Your task to perform on an android device: turn off data saver in the chrome app Image 0: 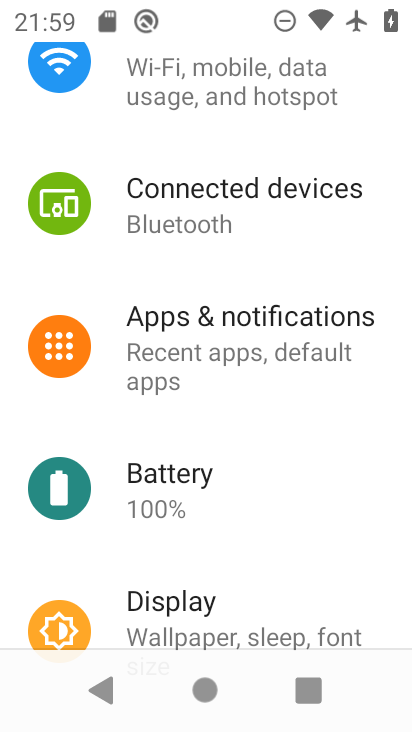
Step 0: press home button
Your task to perform on an android device: turn off data saver in the chrome app Image 1: 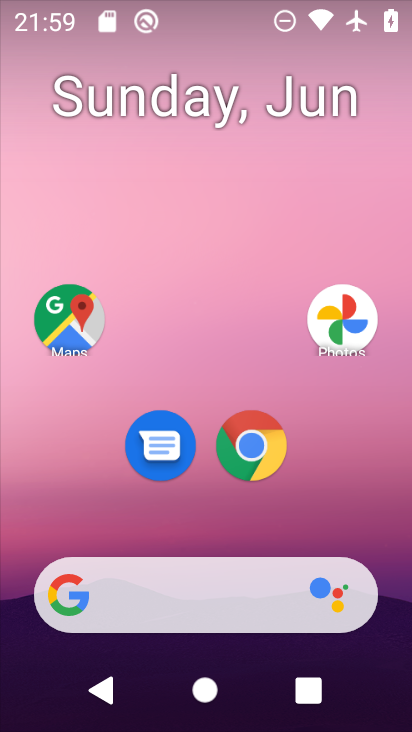
Step 1: click (260, 454)
Your task to perform on an android device: turn off data saver in the chrome app Image 2: 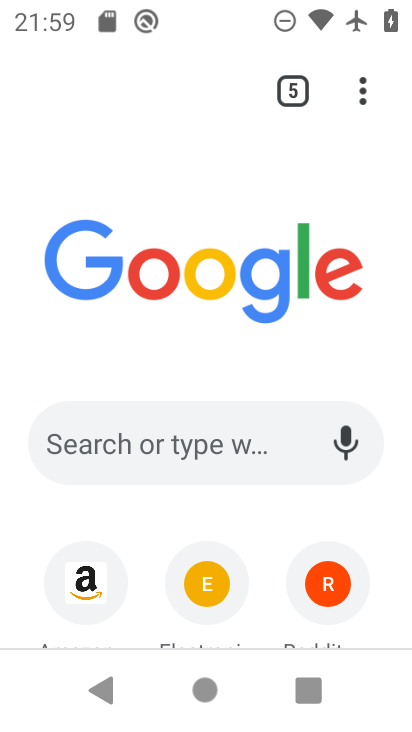
Step 2: drag from (370, 93) to (201, 476)
Your task to perform on an android device: turn off data saver in the chrome app Image 3: 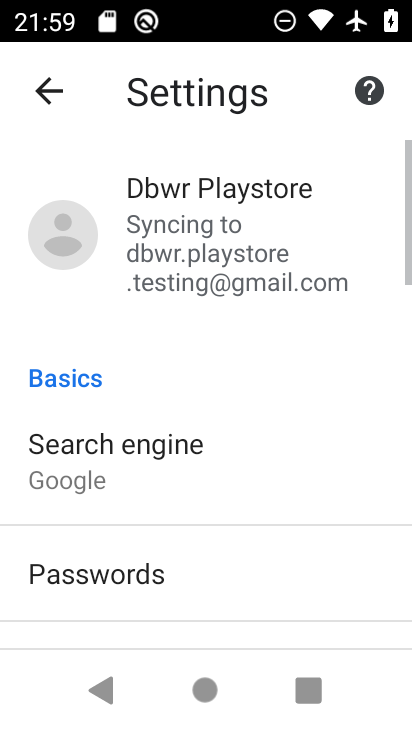
Step 3: drag from (290, 497) to (319, 132)
Your task to perform on an android device: turn off data saver in the chrome app Image 4: 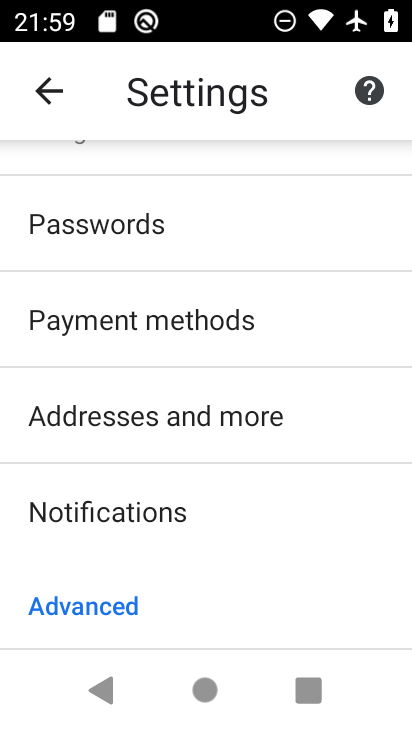
Step 4: drag from (251, 616) to (280, 300)
Your task to perform on an android device: turn off data saver in the chrome app Image 5: 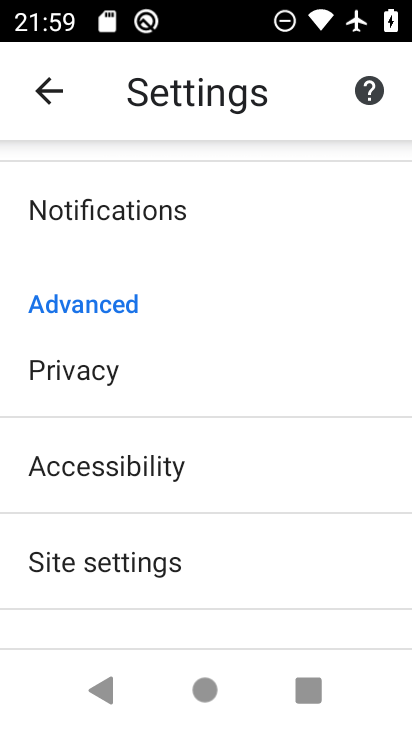
Step 5: drag from (275, 471) to (245, 226)
Your task to perform on an android device: turn off data saver in the chrome app Image 6: 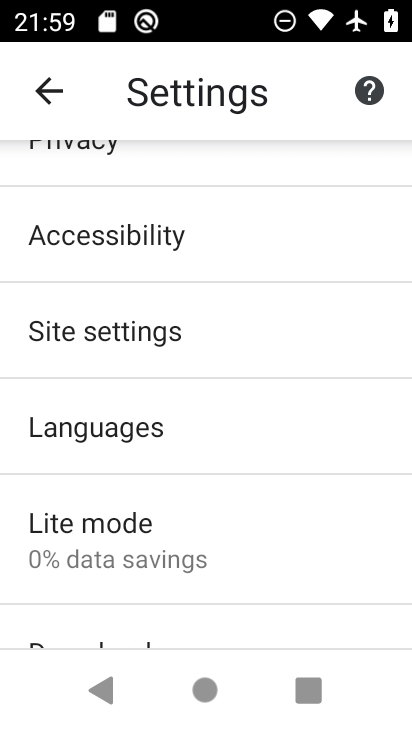
Step 6: click (222, 538)
Your task to perform on an android device: turn off data saver in the chrome app Image 7: 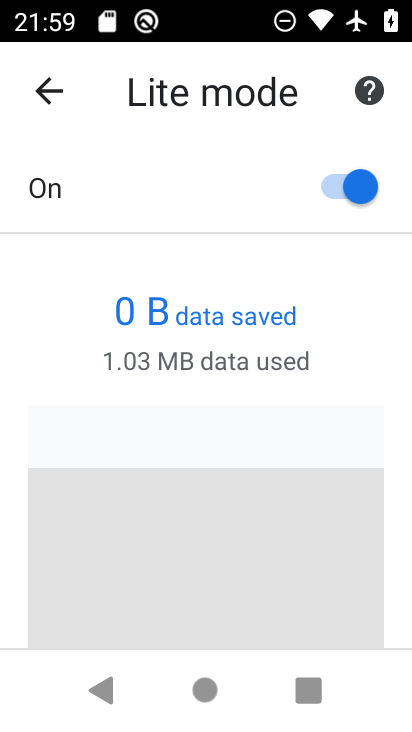
Step 7: click (335, 204)
Your task to perform on an android device: turn off data saver in the chrome app Image 8: 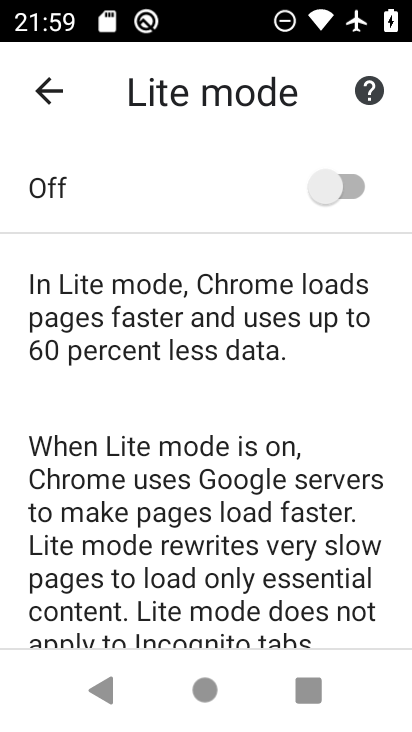
Step 8: task complete